Your task to perform on an android device: Open network settings Image 0: 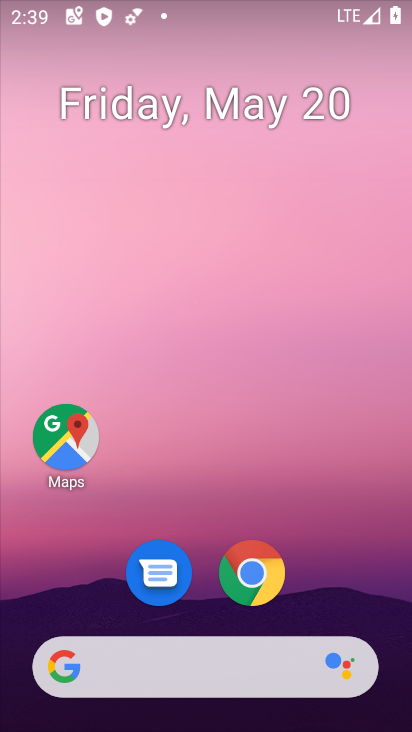
Step 0: click (247, 5)
Your task to perform on an android device: Open network settings Image 1: 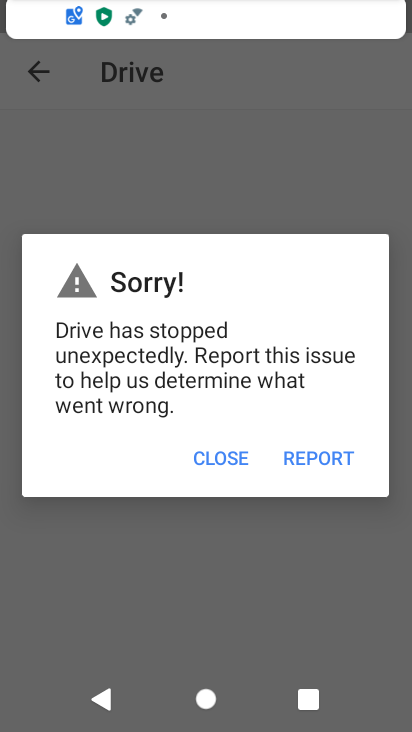
Step 1: press home button
Your task to perform on an android device: Open network settings Image 2: 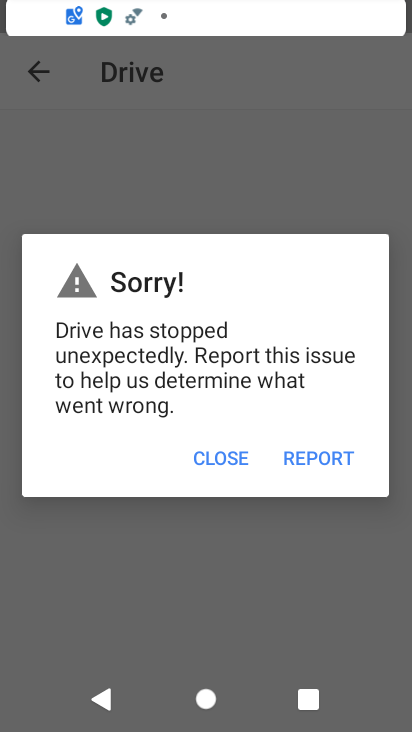
Step 2: drag from (247, 5) to (332, 413)
Your task to perform on an android device: Open network settings Image 3: 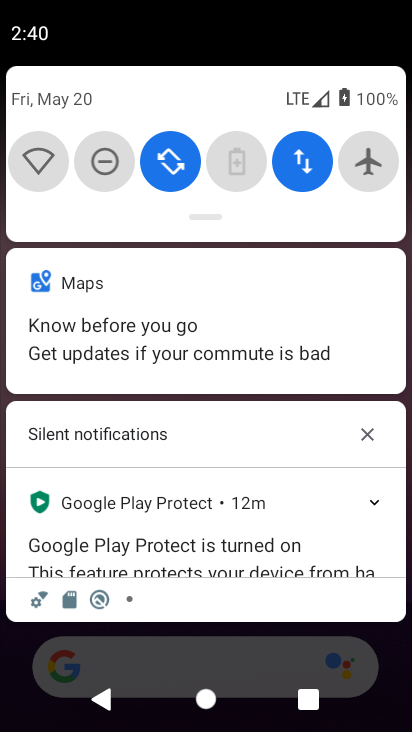
Step 3: drag from (328, 586) to (325, 273)
Your task to perform on an android device: Open network settings Image 4: 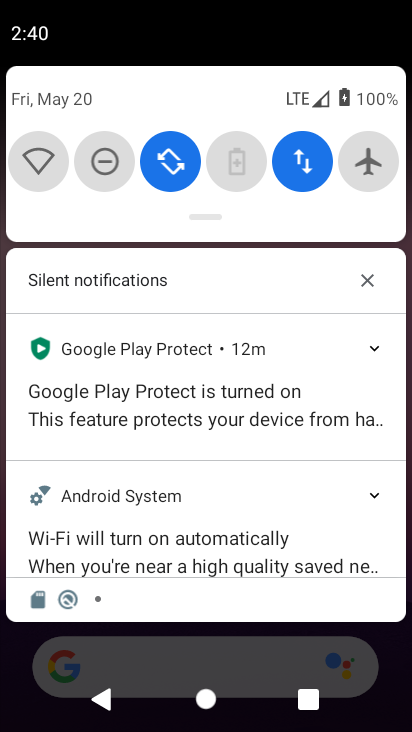
Step 4: press home button
Your task to perform on an android device: Open network settings Image 5: 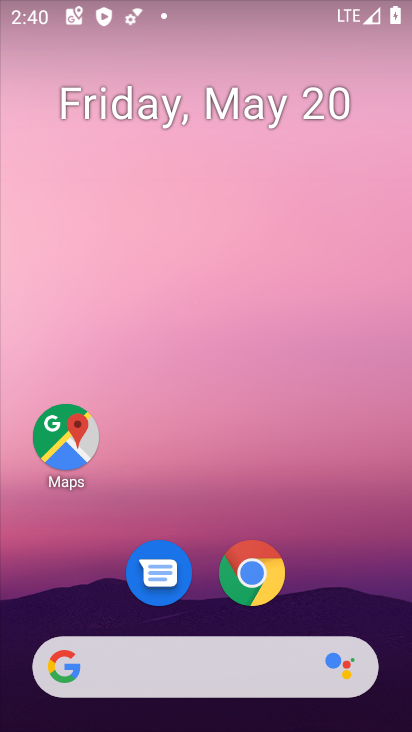
Step 5: drag from (349, 562) to (253, 86)
Your task to perform on an android device: Open network settings Image 6: 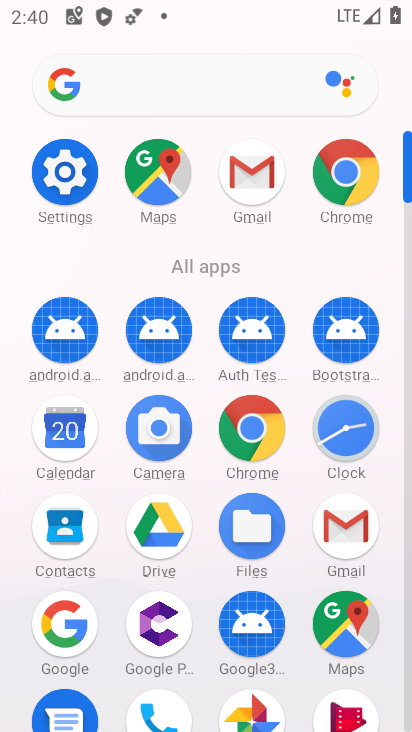
Step 6: click (49, 171)
Your task to perform on an android device: Open network settings Image 7: 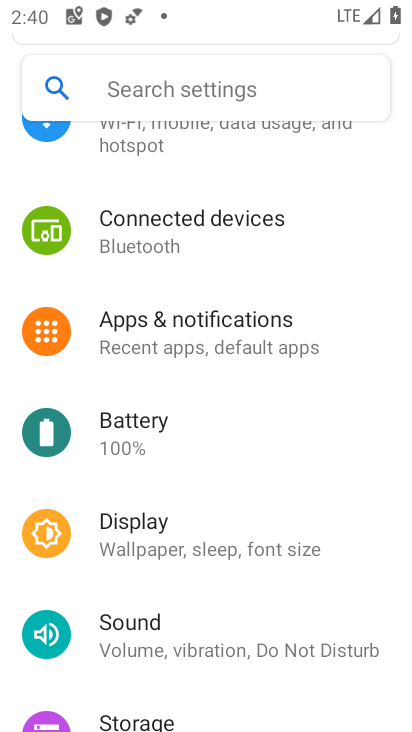
Step 7: drag from (306, 183) to (259, 586)
Your task to perform on an android device: Open network settings Image 8: 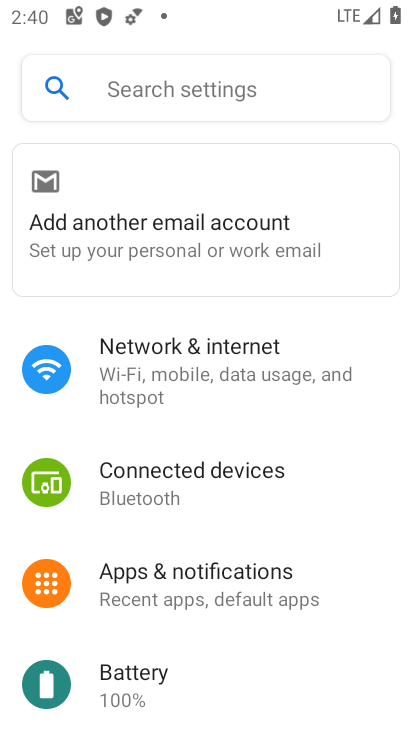
Step 8: click (227, 383)
Your task to perform on an android device: Open network settings Image 9: 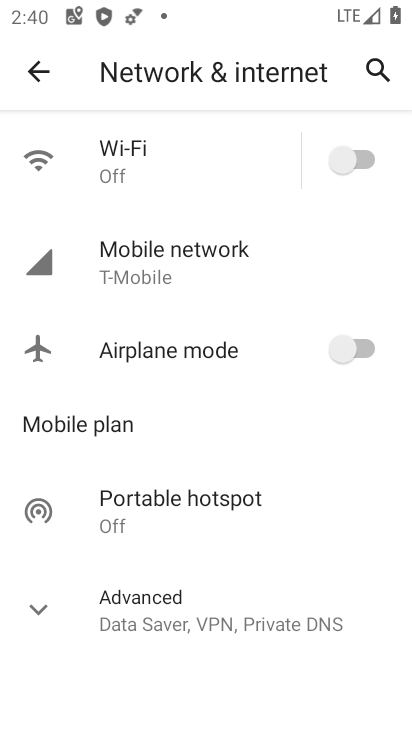
Step 9: task complete